Your task to perform on an android device: clear all cookies in the chrome app Image 0: 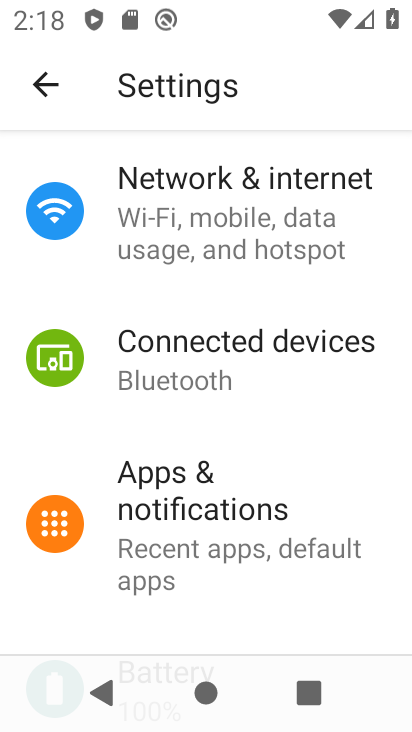
Step 0: press home button
Your task to perform on an android device: clear all cookies in the chrome app Image 1: 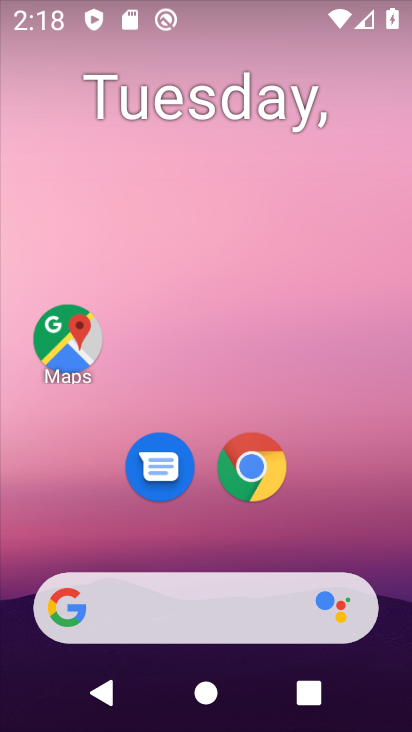
Step 1: drag from (335, 483) to (338, 118)
Your task to perform on an android device: clear all cookies in the chrome app Image 2: 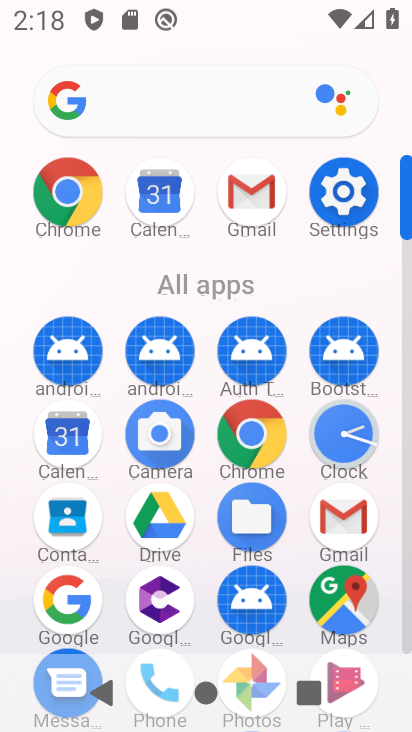
Step 2: click (266, 448)
Your task to perform on an android device: clear all cookies in the chrome app Image 3: 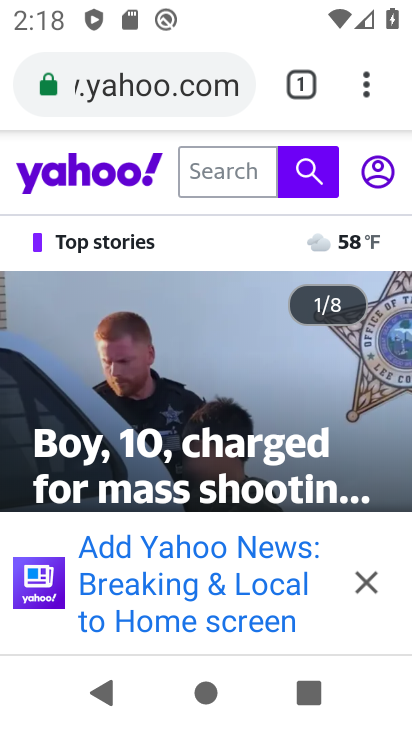
Step 3: click (367, 99)
Your task to perform on an android device: clear all cookies in the chrome app Image 4: 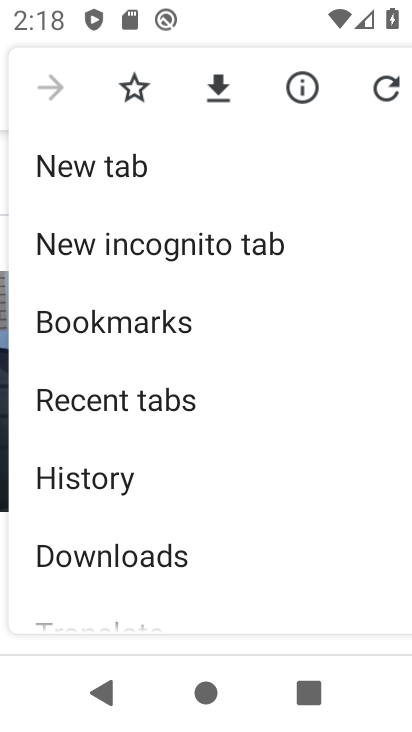
Step 4: drag from (322, 494) to (323, 370)
Your task to perform on an android device: clear all cookies in the chrome app Image 5: 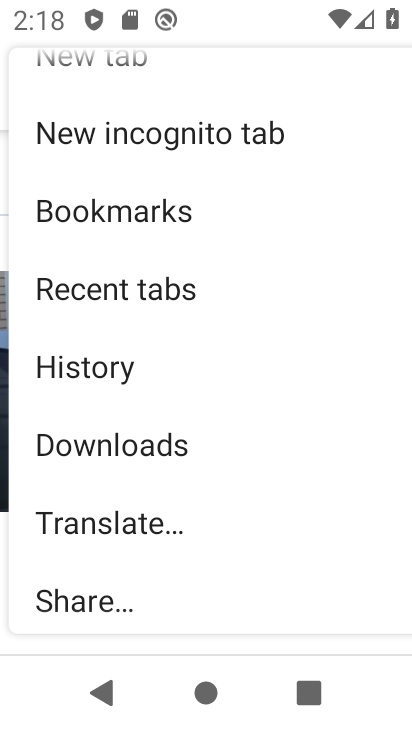
Step 5: drag from (339, 507) to (336, 354)
Your task to perform on an android device: clear all cookies in the chrome app Image 6: 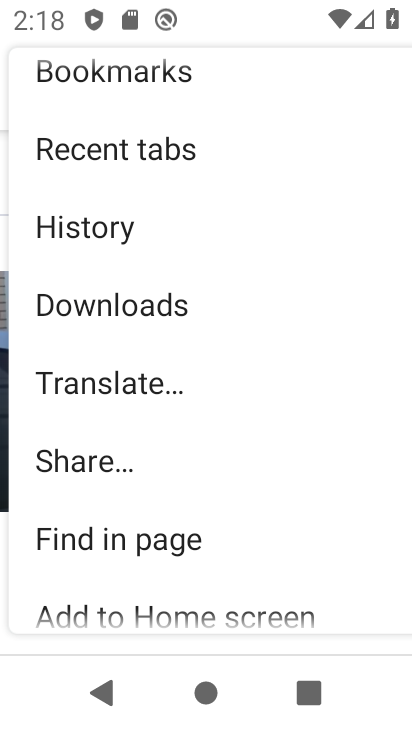
Step 6: drag from (348, 489) to (340, 336)
Your task to perform on an android device: clear all cookies in the chrome app Image 7: 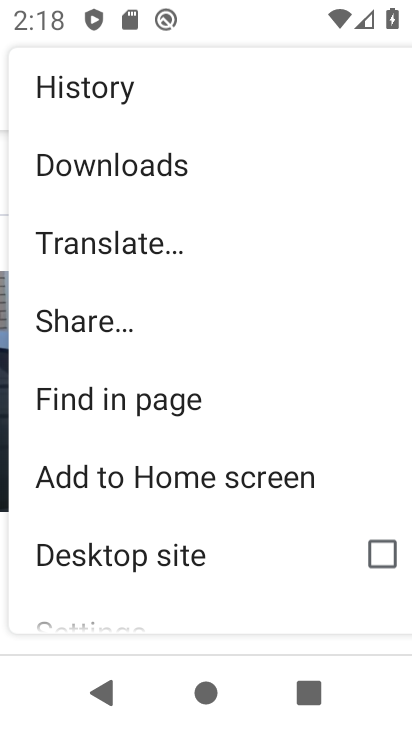
Step 7: drag from (313, 512) to (319, 353)
Your task to perform on an android device: clear all cookies in the chrome app Image 8: 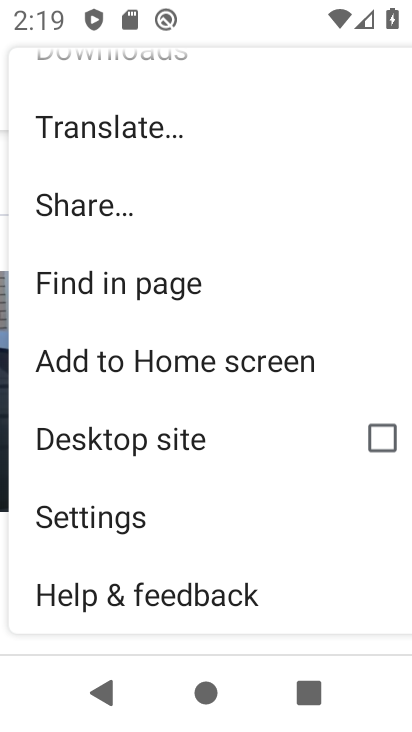
Step 8: drag from (313, 520) to (316, 350)
Your task to perform on an android device: clear all cookies in the chrome app Image 9: 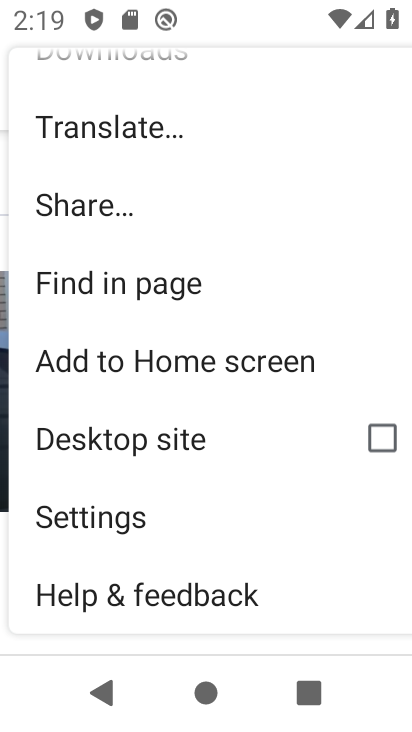
Step 9: click (180, 531)
Your task to perform on an android device: clear all cookies in the chrome app Image 10: 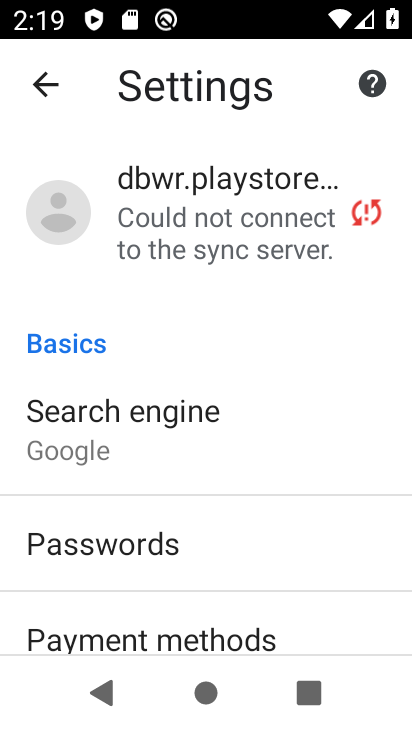
Step 10: drag from (297, 521) to (313, 439)
Your task to perform on an android device: clear all cookies in the chrome app Image 11: 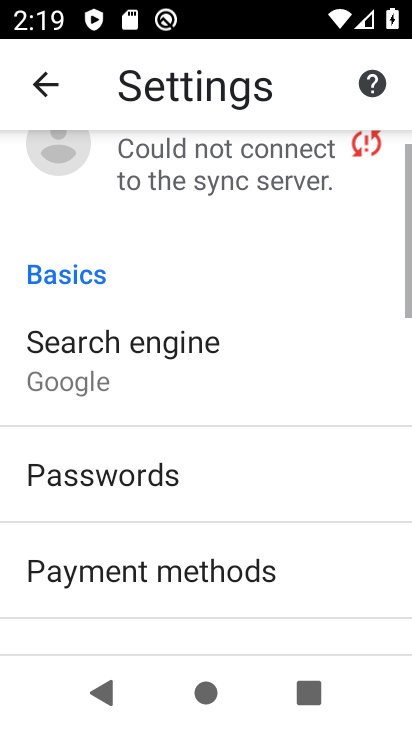
Step 11: drag from (333, 544) to (342, 454)
Your task to perform on an android device: clear all cookies in the chrome app Image 12: 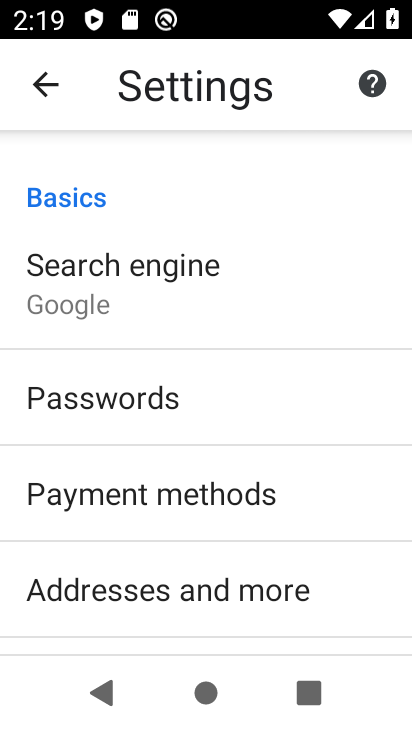
Step 12: drag from (349, 551) to (356, 432)
Your task to perform on an android device: clear all cookies in the chrome app Image 13: 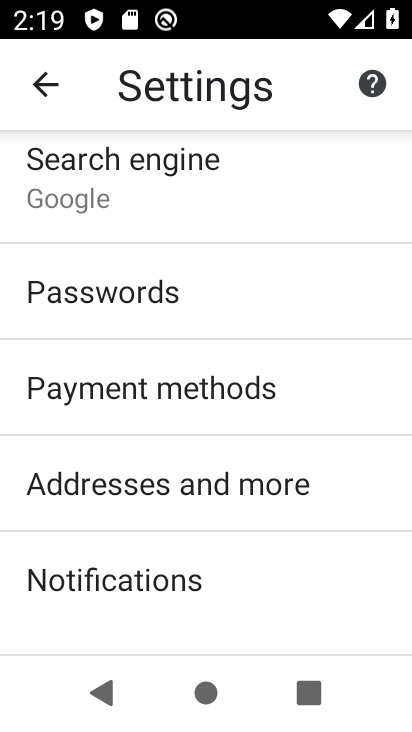
Step 13: drag from (333, 558) to (343, 458)
Your task to perform on an android device: clear all cookies in the chrome app Image 14: 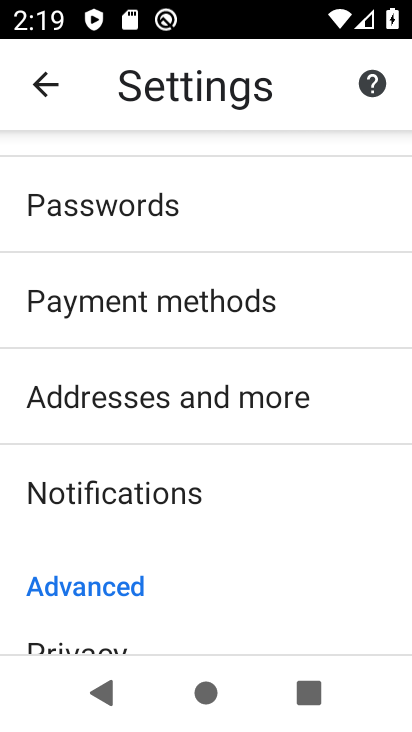
Step 14: drag from (348, 554) to (349, 444)
Your task to perform on an android device: clear all cookies in the chrome app Image 15: 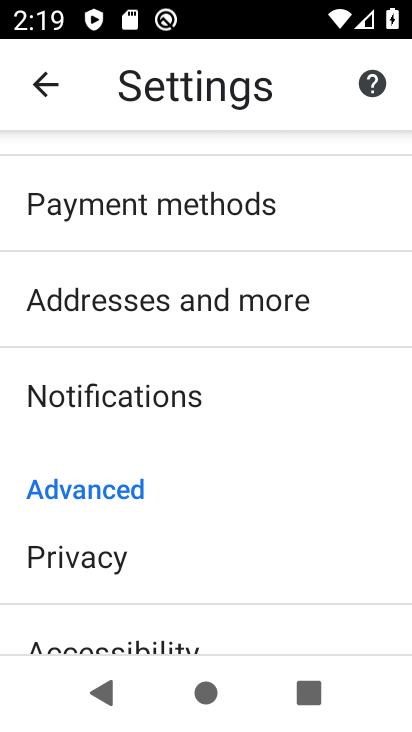
Step 15: drag from (345, 540) to (349, 407)
Your task to perform on an android device: clear all cookies in the chrome app Image 16: 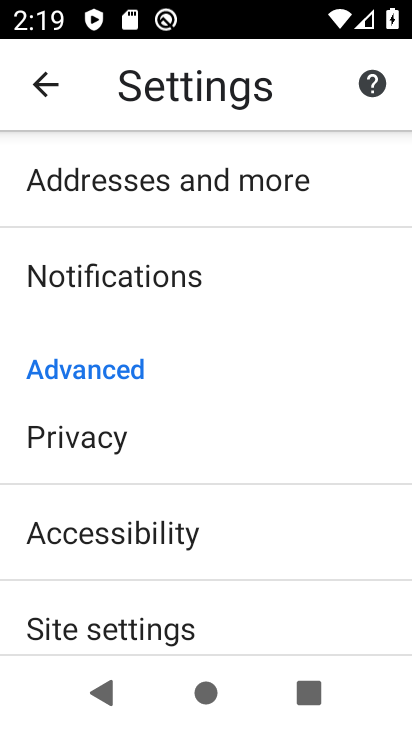
Step 16: drag from (357, 559) to (361, 370)
Your task to perform on an android device: clear all cookies in the chrome app Image 17: 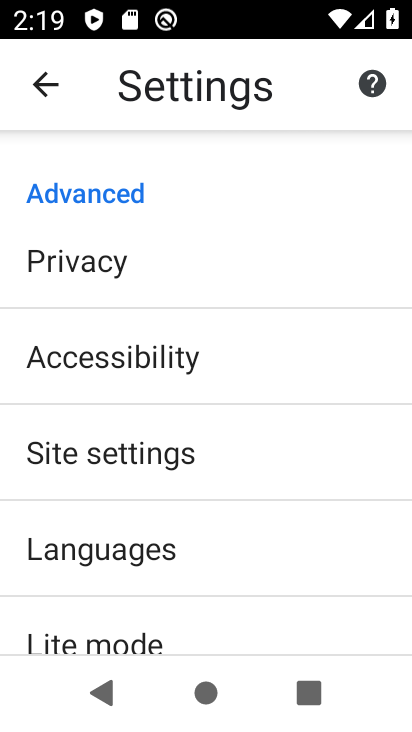
Step 17: click (321, 460)
Your task to perform on an android device: clear all cookies in the chrome app Image 18: 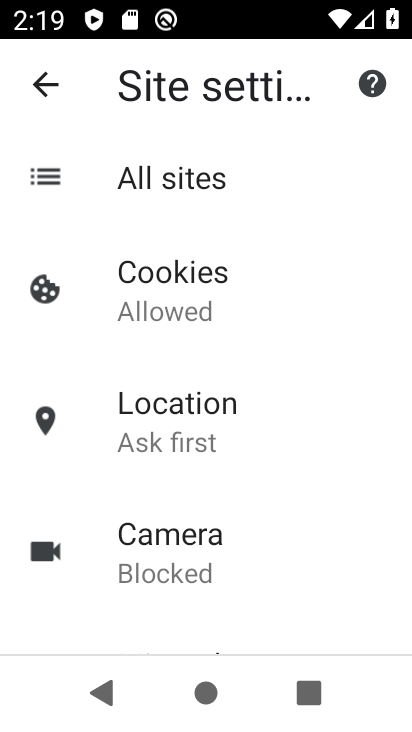
Step 18: click (234, 281)
Your task to perform on an android device: clear all cookies in the chrome app Image 19: 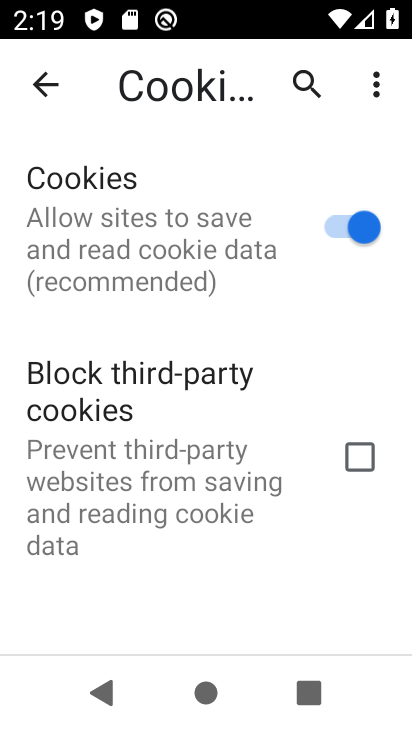
Step 19: click (30, 85)
Your task to perform on an android device: clear all cookies in the chrome app Image 20: 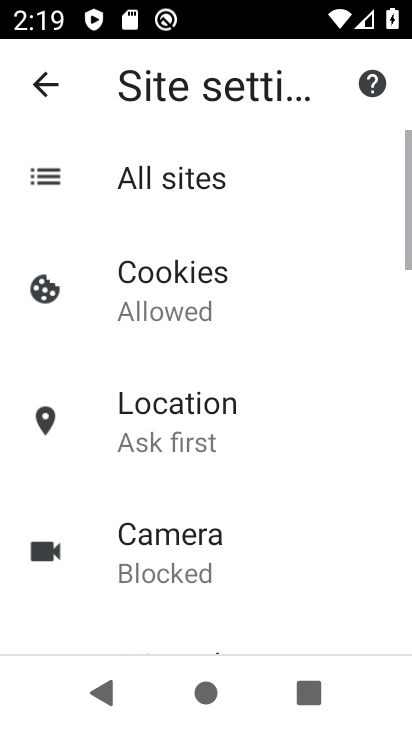
Step 20: click (157, 281)
Your task to perform on an android device: clear all cookies in the chrome app Image 21: 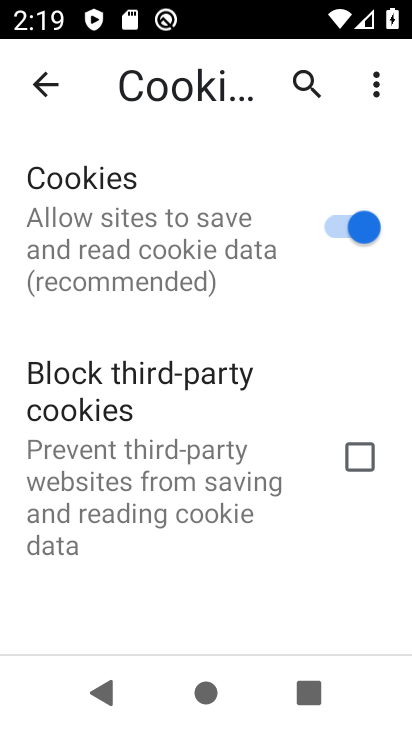
Step 21: click (355, 242)
Your task to perform on an android device: clear all cookies in the chrome app Image 22: 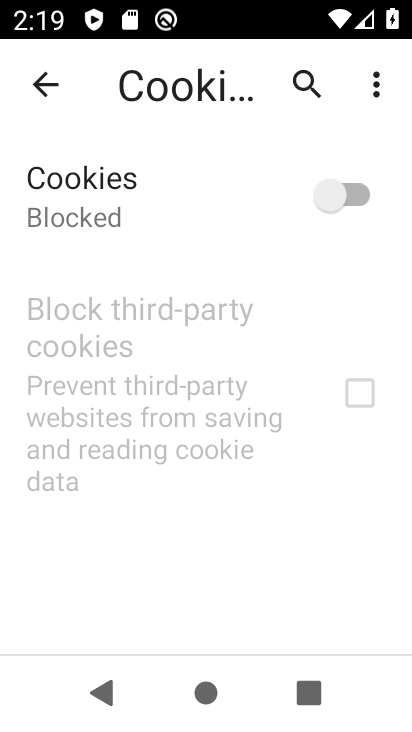
Step 22: task complete